Your task to perform on an android device: Turn off the flashlight Image 0: 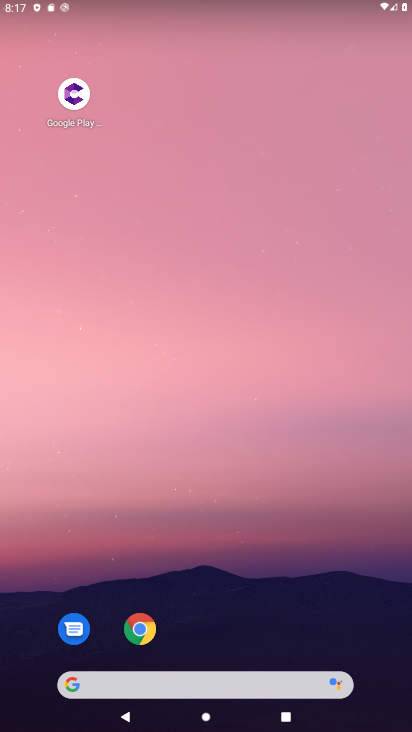
Step 0: drag from (193, 640) to (259, 69)
Your task to perform on an android device: Turn off the flashlight Image 1: 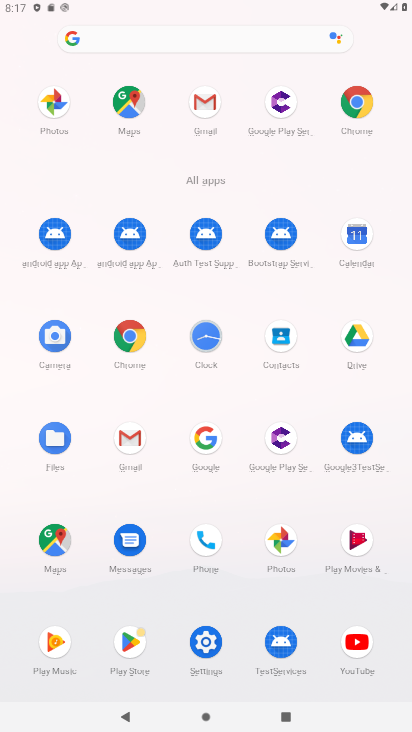
Step 1: task complete